Your task to perform on an android device: turn notification dots off Image 0: 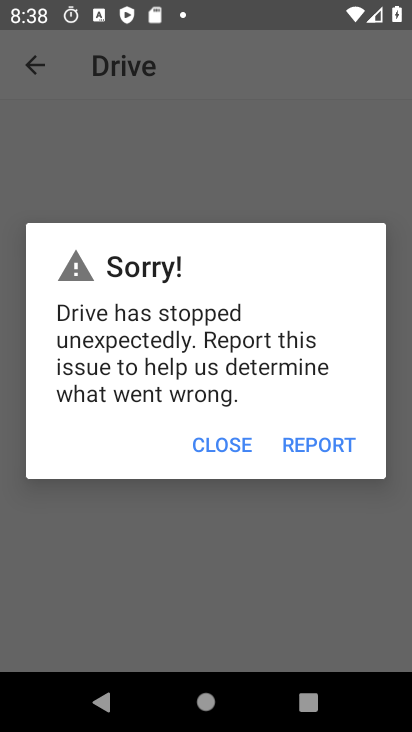
Step 0: press home button
Your task to perform on an android device: turn notification dots off Image 1: 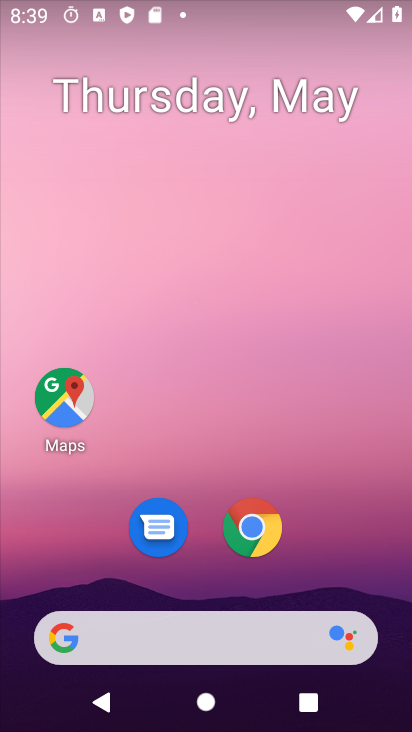
Step 1: drag from (14, 620) to (215, 168)
Your task to perform on an android device: turn notification dots off Image 2: 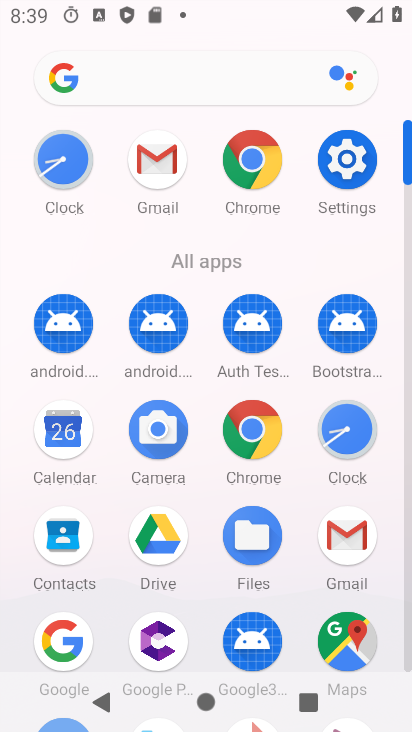
Step 2: click (355, 163)
Your task to perform on an android device: turn notification dots off Image 3: 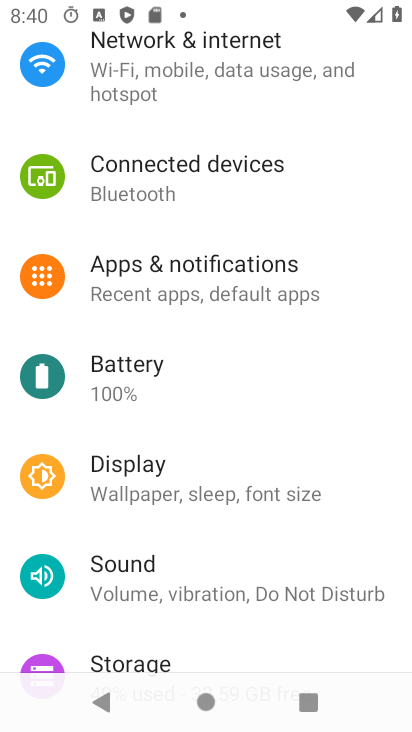
Step 3: click (130, 292)
Your task to perform on an android device: turn notification dots off Image 4: 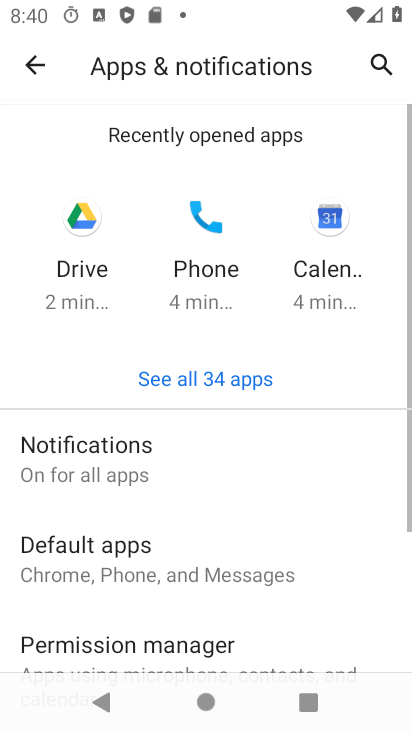
Step 4: click (110, 464)
Your task to perform on an android device: turn notification dots off Image 5: 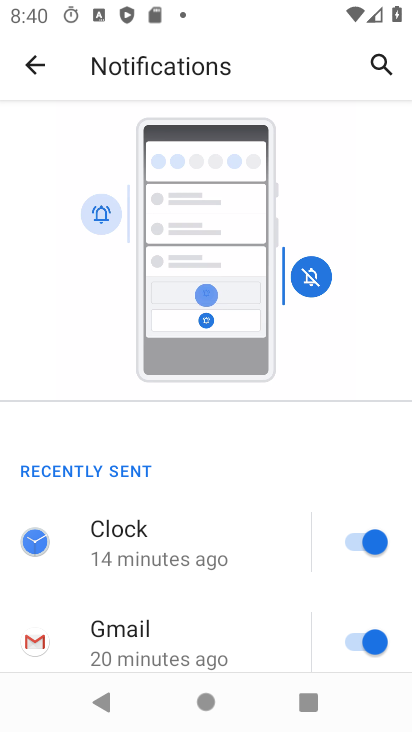
Step 5: drag from (79, 460) to (248, 136)
Your task to perform on an android device: turn notification dots off Image 6: 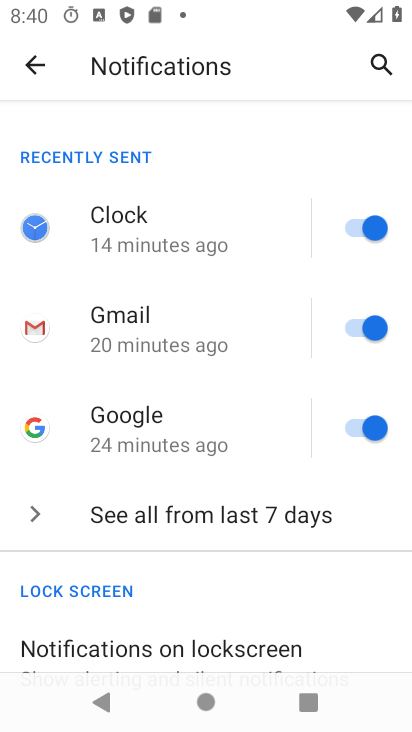
Step 6: drag from (48, 617) to (294, 194)
Your task to perform on an android device: turn notification dots off Image 7: 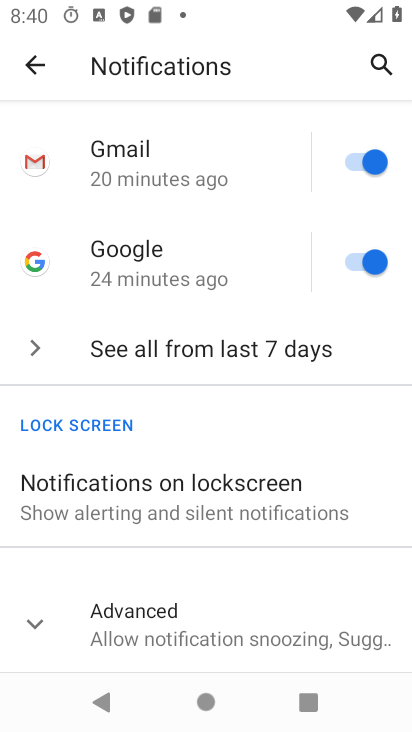
Step 7: click (133, 634)
Your task to perform on an android device: turn notification dots off Image 8: 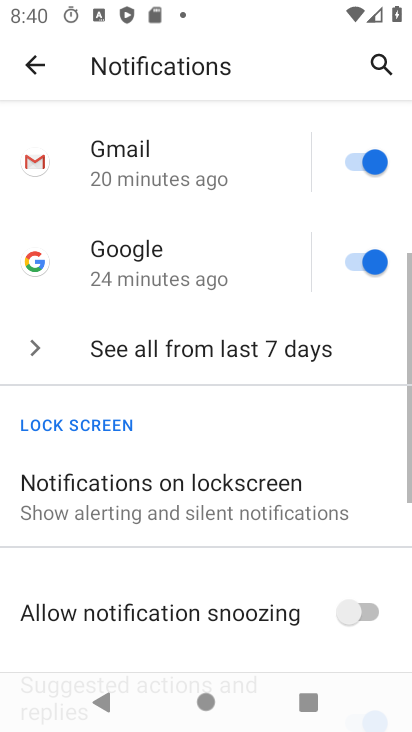
Step 8: drag from (18, 580) to (255, 193)
Your task to perform on an android device: turn notification dots off Image 9: 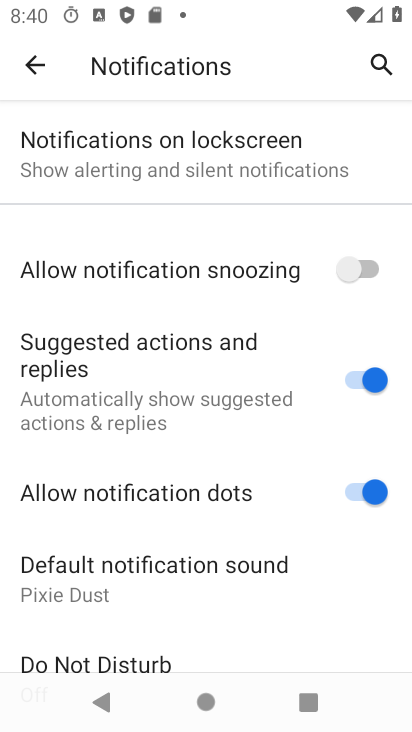
Step 9: click (373, 496)
Your task to perform on an android device: turn notification dots off Image 10: 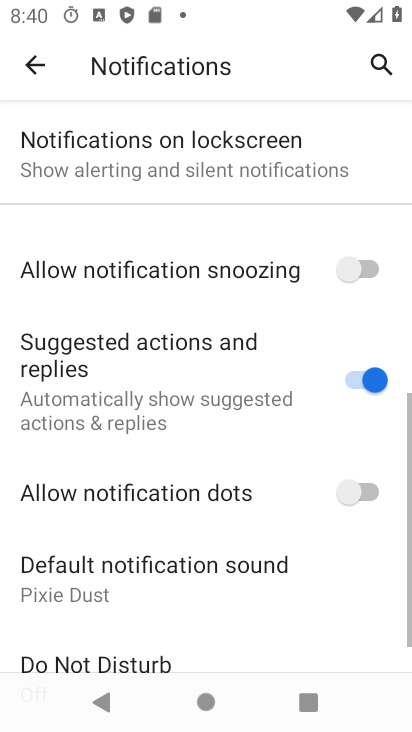
Step 10: task complete